Your task to perform on an android device: Go to Google maps Image 0: 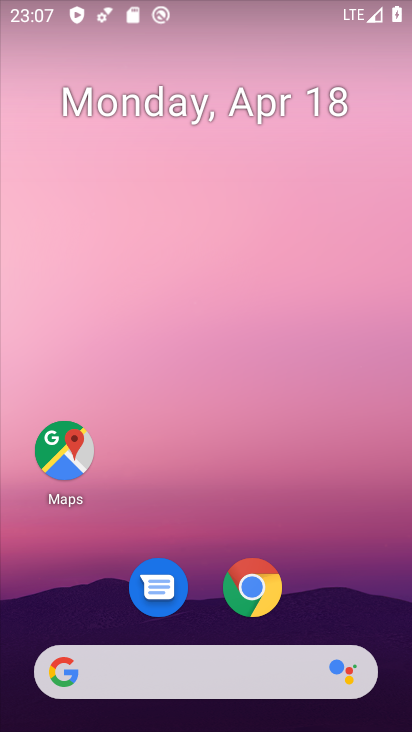
Step 0: drag from (382, 540) to (410, 137)
Your task to perform on an android device: Go to Google maps Image 1: 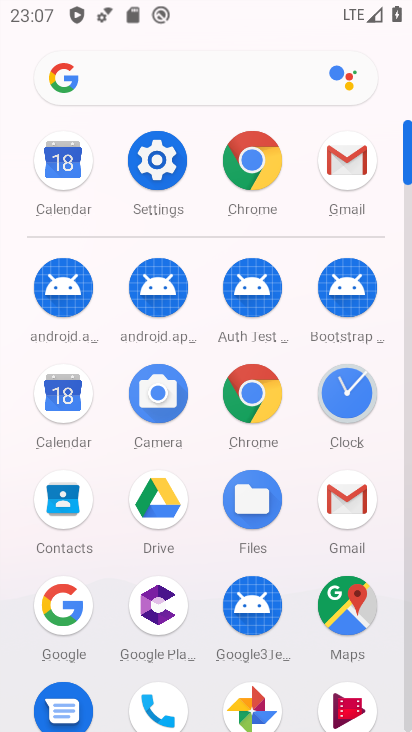
Step 1: click (340, 587)
Your task to perform on an android device: Go to Google maps Image 2: 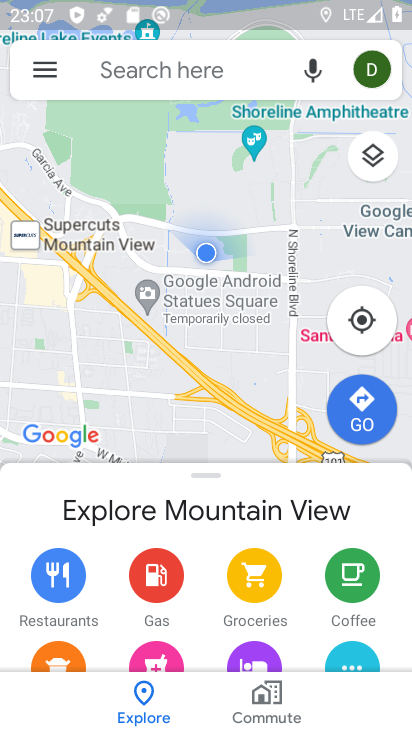
Step 2: task complete